Your task to perform on an android device: Search for Italian restaurants on Maps Image 0: 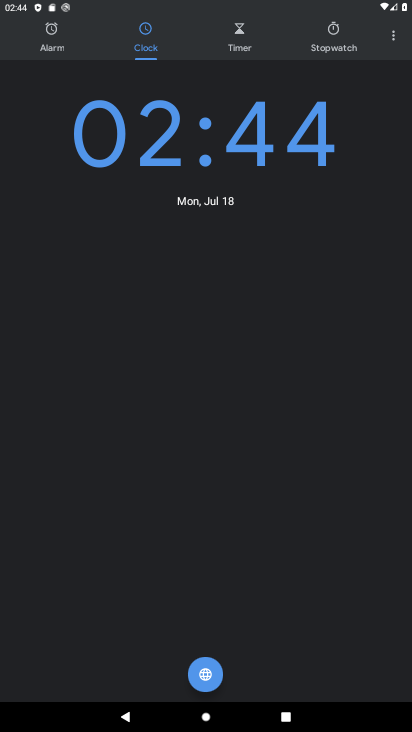
Step 0: press home button
Your task to perform on an android device: Search for Italian restaurants on Maps Image 1: 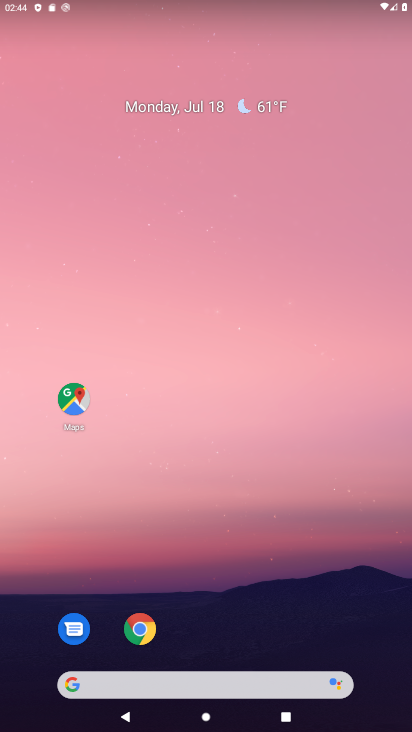
Step 1: click (169, 692)
Your task to perform on an android device: Search for Italian restaurants on Maps Image 2: 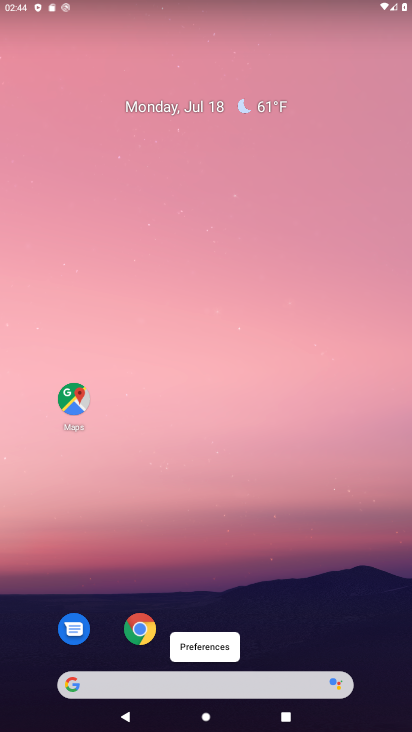
Step 2: click (70, 400)
Your task to perform on an android device: Search for Italian restaurants on Maps Image 3: 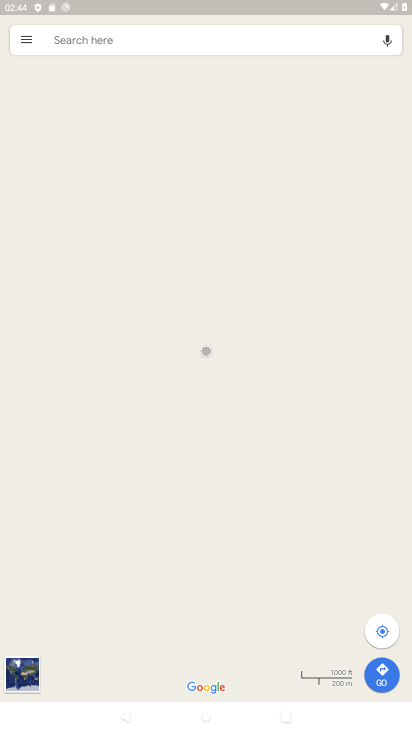
Step 3: click (219, 36)
Your task to perform on an android device: Search for Italian restaurants on Maps Image 4: 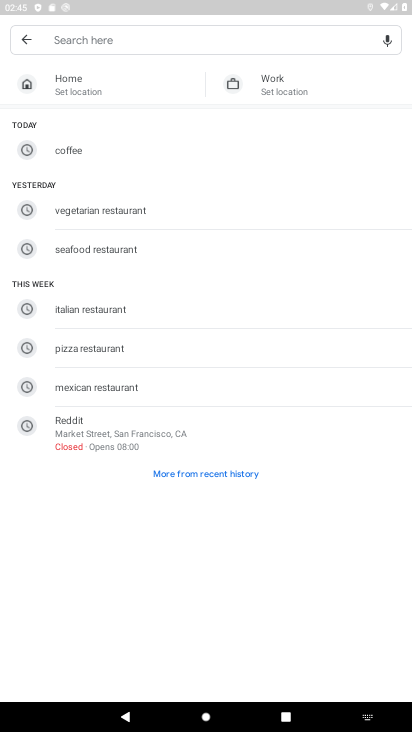
Step 4: type "Italian restaurants"
Your task to perform on an android device: Search for Italian restaurants on Maps Image 5: 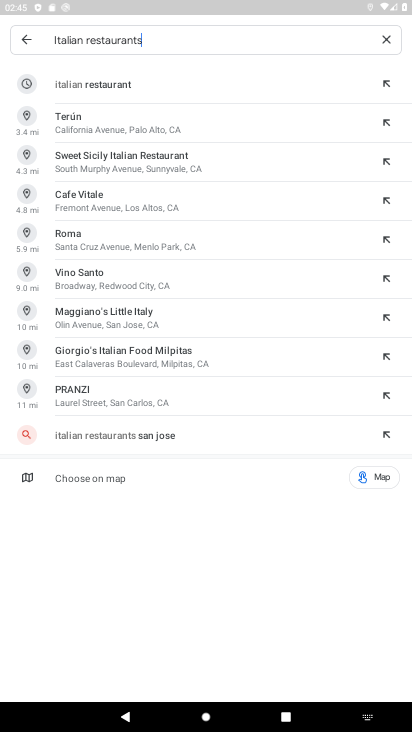
Step 5: click (119, 90)
Your task to perform on an android device: Search for Italian restaurants on Maps Image 6: 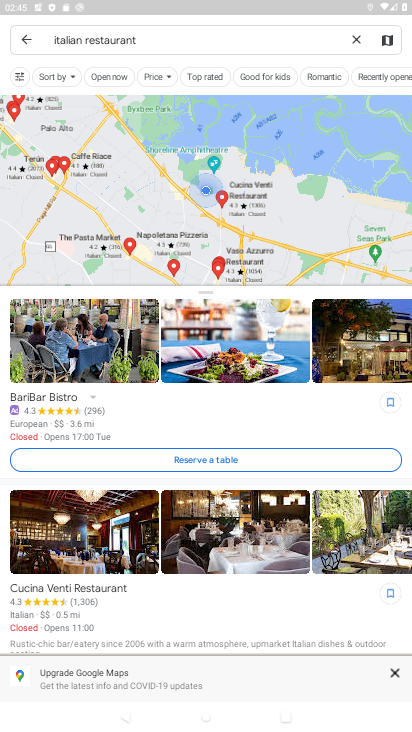
Step 6: task complete